Your task to perform on an android device: toggle notification dots Image 0: 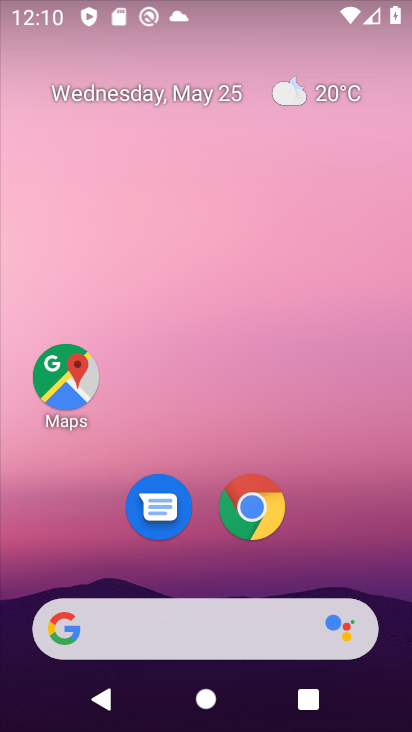
Step 0: drag from (345, 545) to (279, 122)
Your task to perform on an android device: toggle notification dots Image 1: 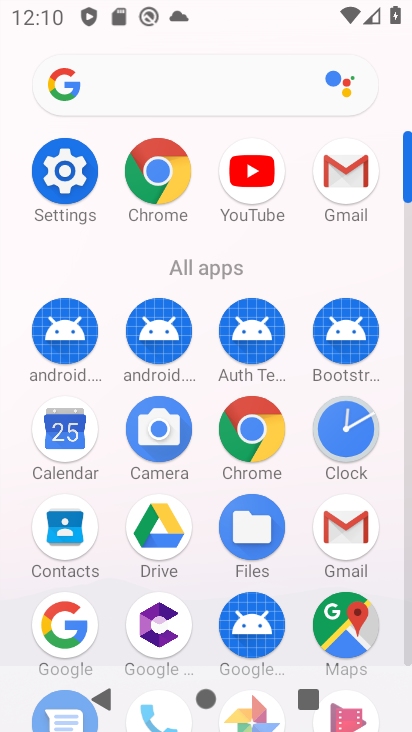
Step 1: click (56, 174)
Your task to perform on an android device: toggle notification dots Image 2: 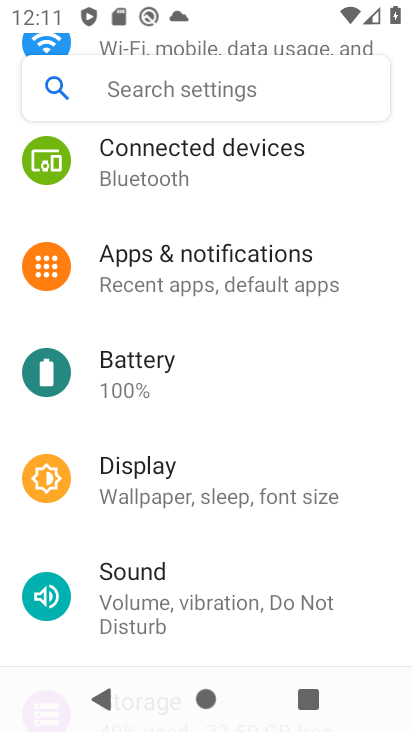
Step 2: click (260, 268)
Your task to perform on an android device: toggle notification dots Image 3: 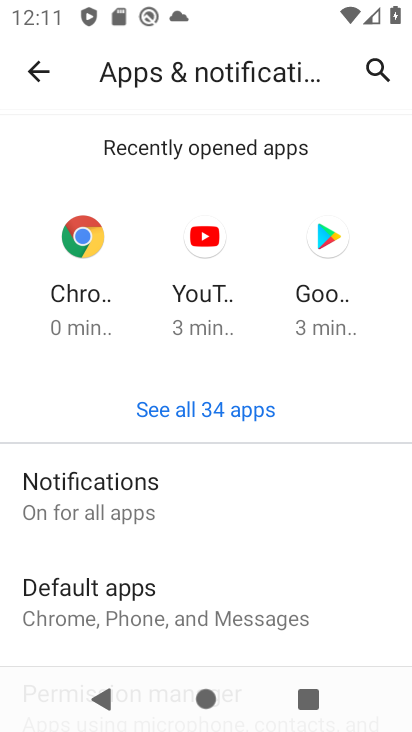
Step 3: click (119, 493)
Your task to perform on an android device: toggle notification dots Image 4: 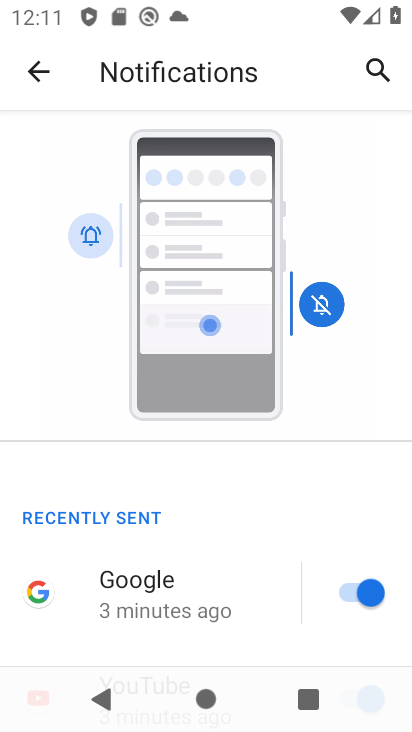
Step 4: drag from (308, 635) to (235, 168)
Your task to perform on an android device: toggle notification dots Image 5: 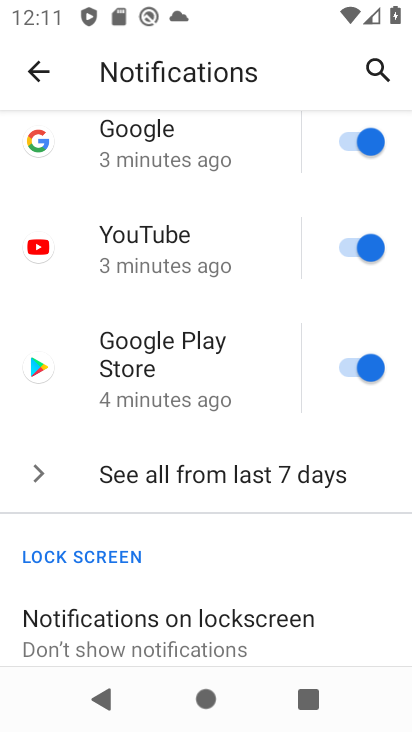
Step 5: drag from (233, 569) to (239, 174)
Your task to perform on an android device: toggle notification dots Image 6: 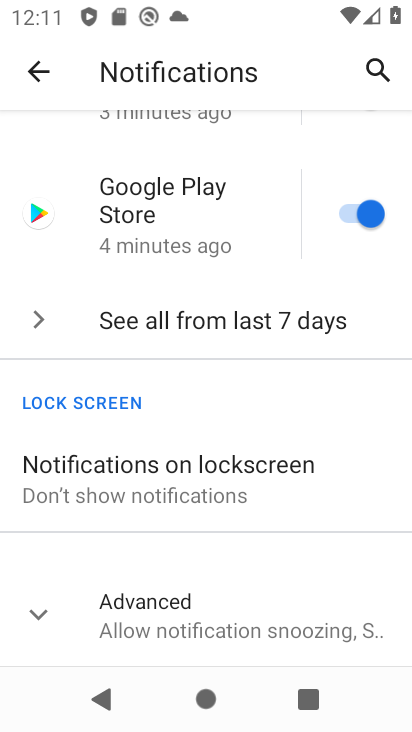
Step 6: click (272, 474)
Your task to perform on an android device: toggle notification dots Image 7: 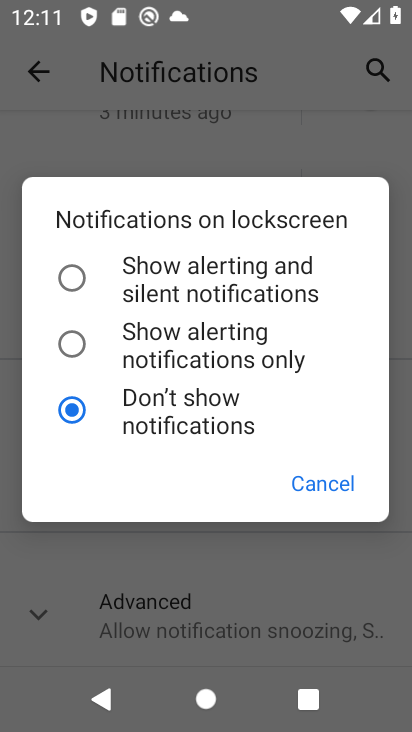
Step 7: click (298, 489)
Your task to perform on an android device: toggle notification dots Image 8: 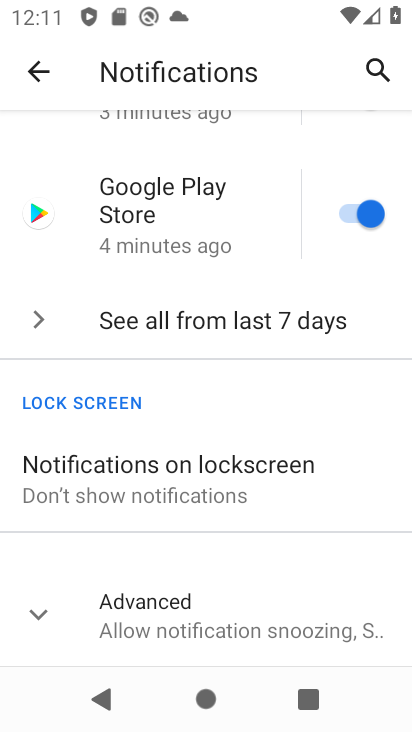
Step 8: click (244, 603)
Your task to perform on an android device: toggle notification dots Image 9: 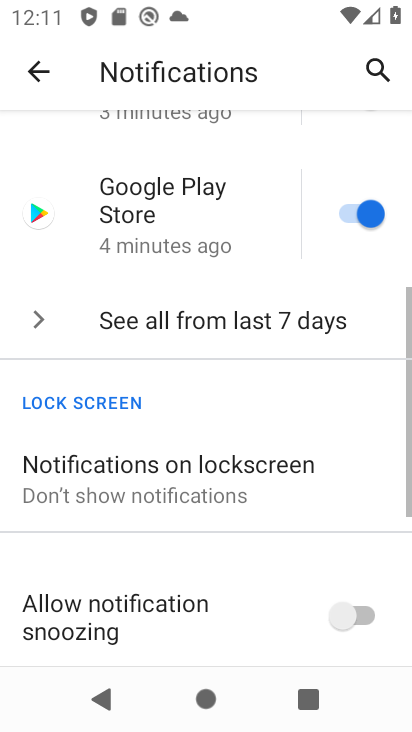
Step 9: drag from (244, 603) to (257, 259)
Your task to perform on an android device: toggle notification dots Image 10: 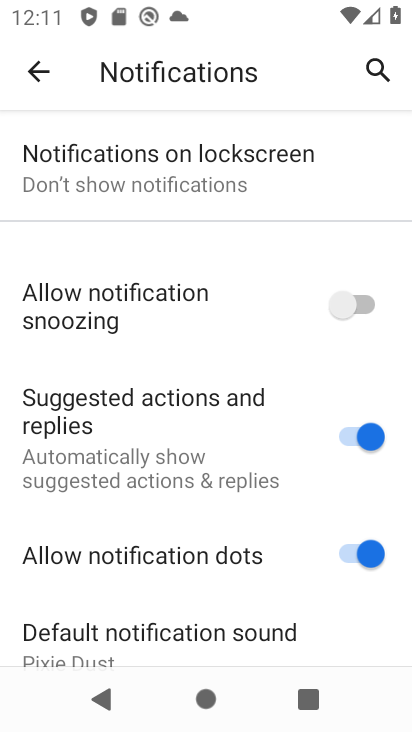
Step 10: click (349, 556)
Your task to perform on an android device: toggle notification dots Image 11: 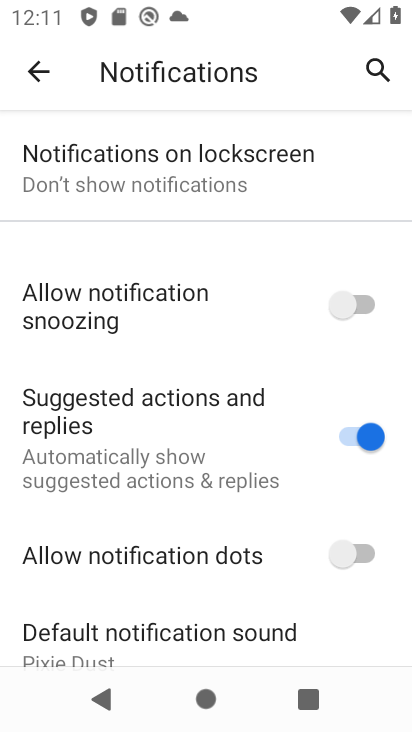
Step 11: task complete